Your task to perform on an android device: clear history in the chrome app Image 0: 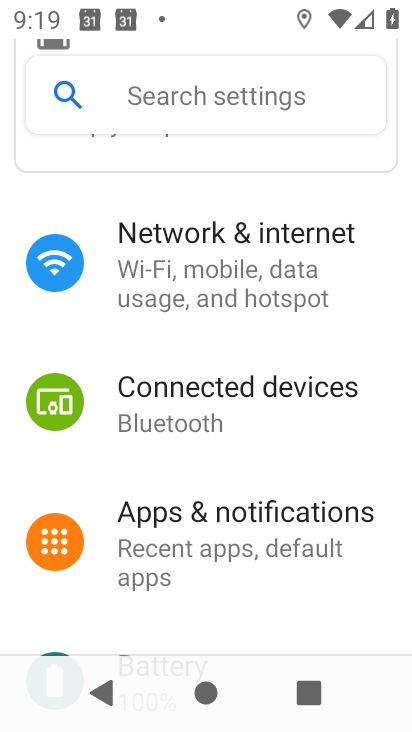
Step 0: press home button
Your task to perform on an android device: clear history in the chrome app Image 1: 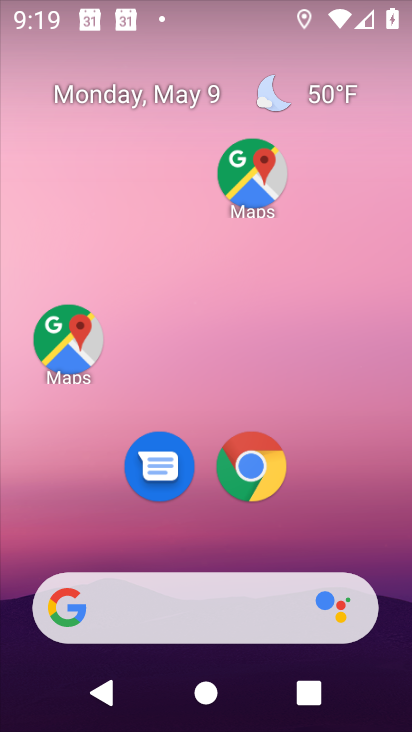
Step 1: click (253, 469)
Your task to perform on an android device: clear history in the chrome app Image 2: 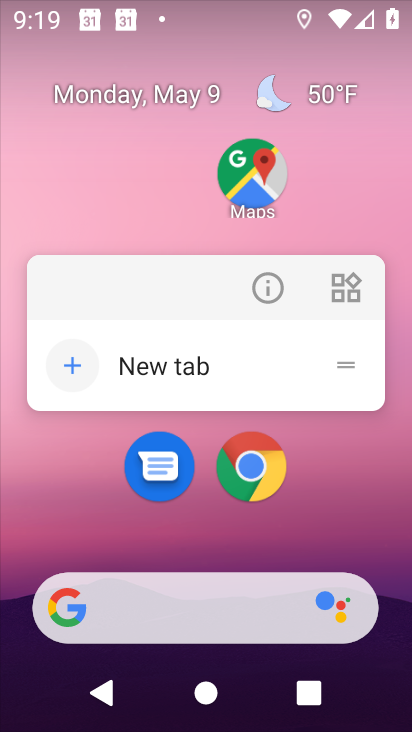
Step 2: click (253, 469)
Your task to perform on an android device: clear history in the chrome app Image 3: 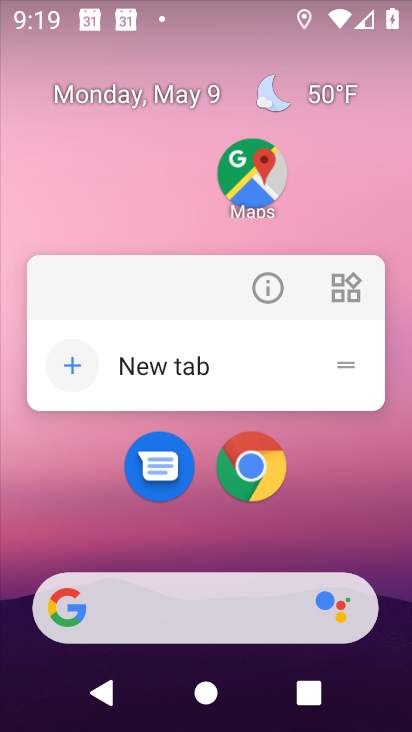
Step 3: click (253, 469)
Your task to perform on an android device: clear history in the chrome app Image 4: 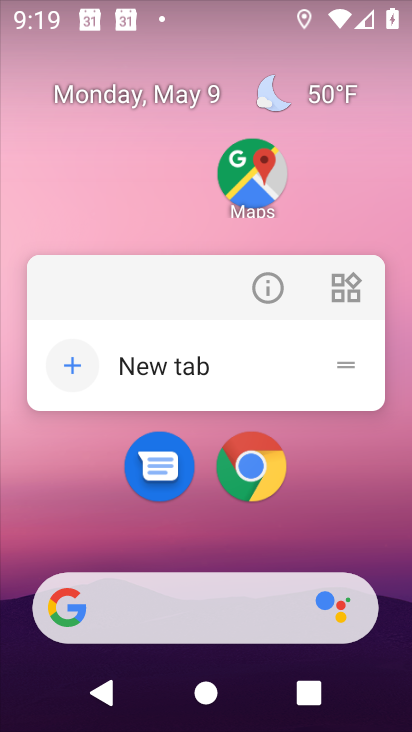
Step 4: click (253, 469)
Your task to perform on an android device: clear history in the chrome app Image 5: 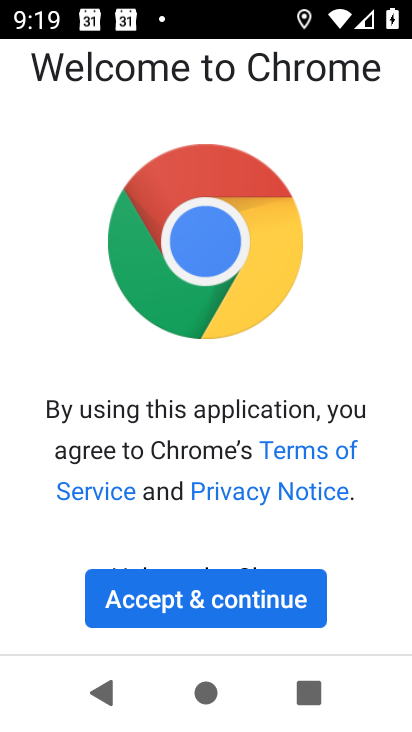
Step 5: click (205, 587)
Your task to perform on an android device: clear history in the chrome app Image 6: 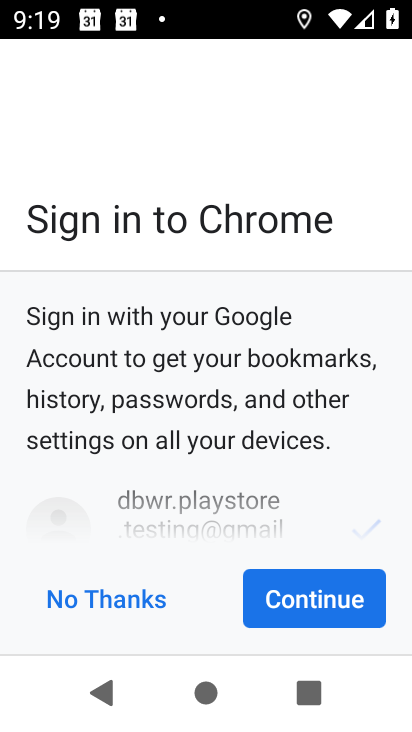
Step 6: click (313, 592)
Your task to perform on an android device: clear history in the chrome app Image 7: 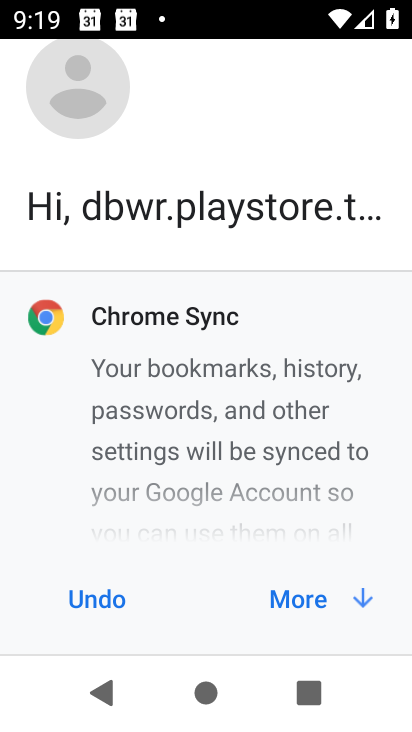
Step 7: click (343, 599)
Your task to perform on an android device: clear history in the chrome app Image 8: 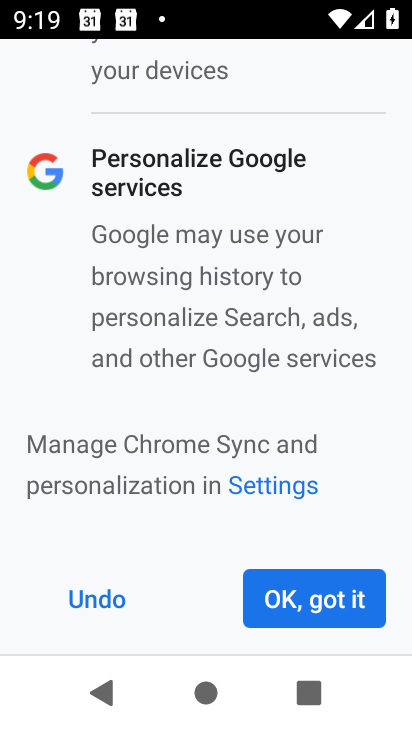
Step 8: click (343, 599)
Your task to perform on an android device: clear history in the chrome app Image 9: 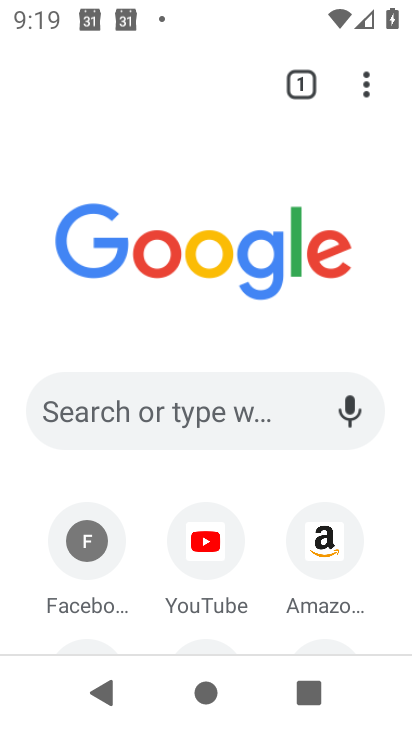
Step 9: click (368, 93)
Your task to perform on an android device: clear history in the chrome app Image 10: 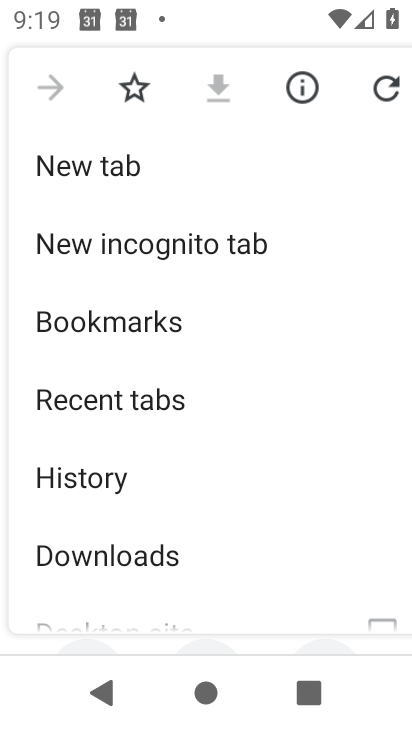
Step 10: click (107, 484)
Your task to perform on an android device: clear history in the chrome app Image 11: 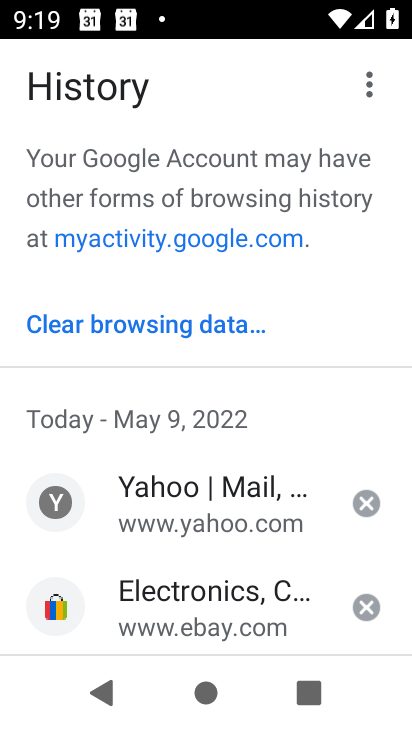
Step 11: click (154, 315)
Your task to perform on an android device: clear history in the chrome app Image 12: 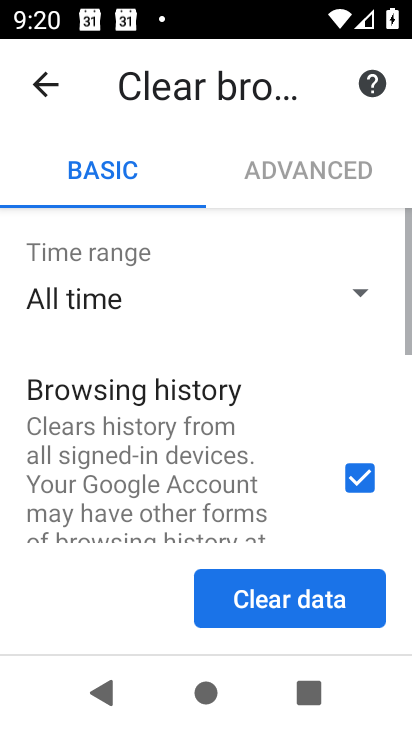
Step 12: click (281, 612)
Your task to perform on an android device: clear history in the chrome app Image 13: 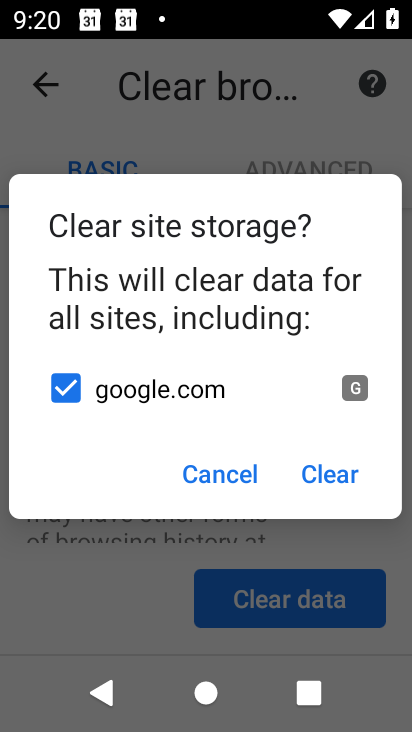
Step 13: click (333, 473)
Your task to perform on an android device: clear history in the chrome app Image 14: 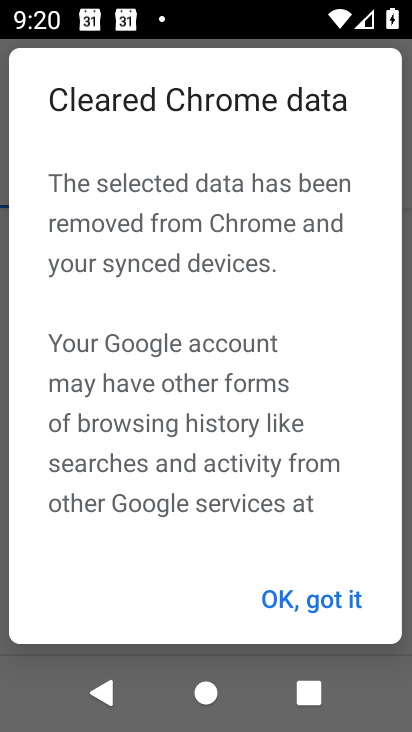
Step 14: click (296, 599)
Your task to perform on an android device: clear history in the chrome app Image 15: 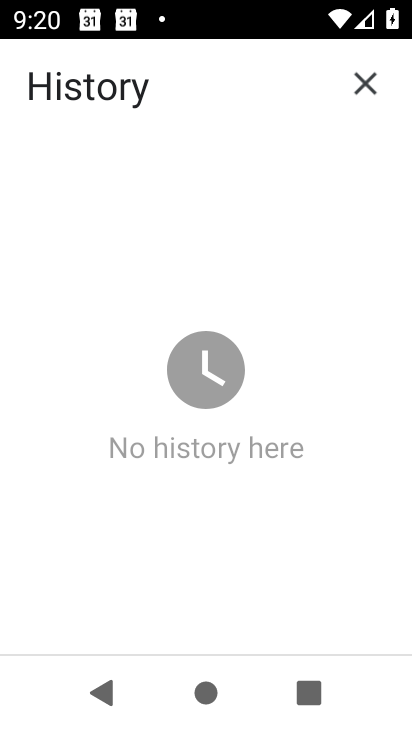
Step 15: task complete